Your task to perform on an android device: Search for vegetarian restaurants on Maps Image 0: 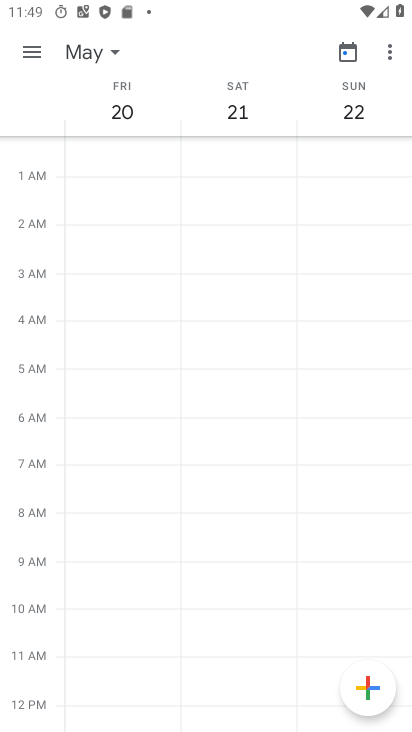
Step 0: press home button
Your task to perform on an android device: Search for vegetarian restaurants on Maps Image 1: 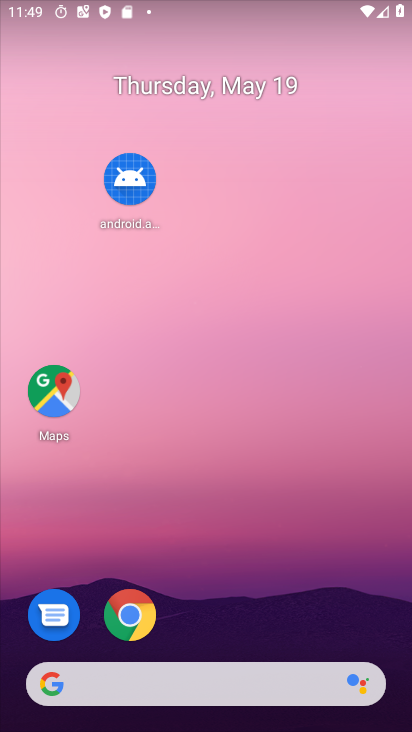
Step 1: click (49, 409)
Your task to perform on an android device: Search for vegetarian restaurants on Maps Image 2: 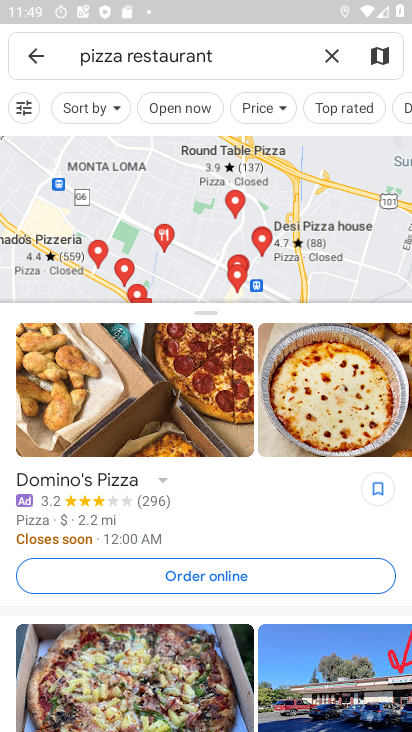
Step 2: click (328, 51)
Your task to perform on an android device: Search for vegetarian restaurants on Maps Image 3: 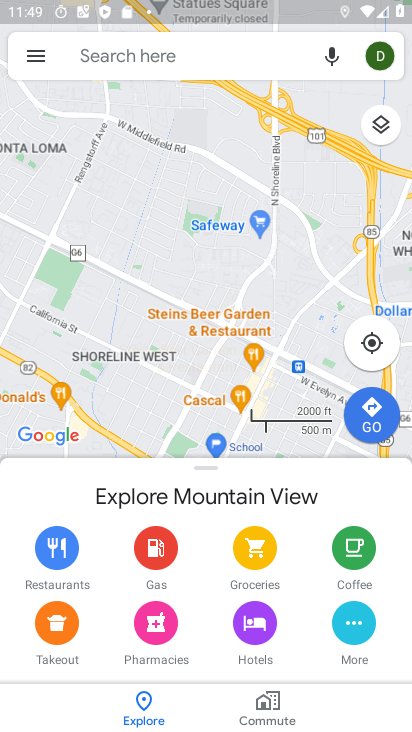
Step 3: click (240, 48)
Your task to perform on an android device: Search for vegetarian restaurants on Maps Image 4: 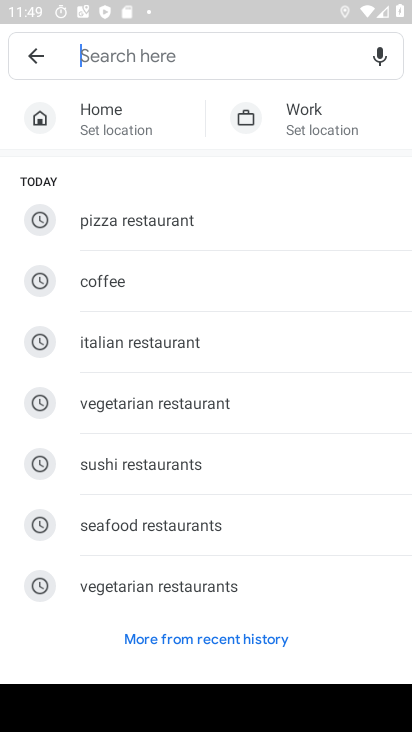
Step 4: click (154, 408)
Your task to perform on an android device: Search for vegetarian restaurants on Maps Image 5: 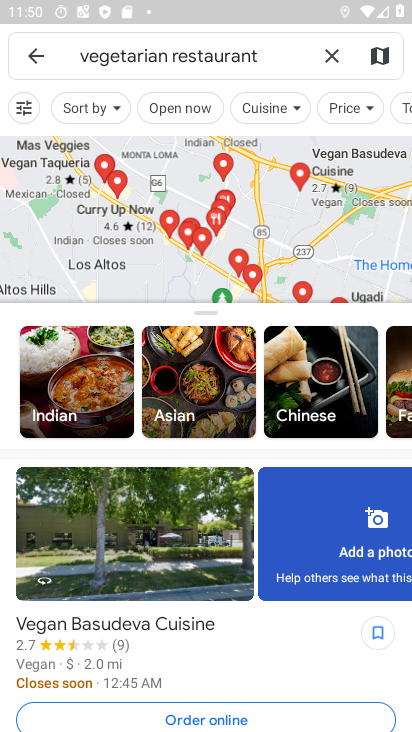
Step 5: task complete